Your task to perform on an android device: show emergency info Image 0: 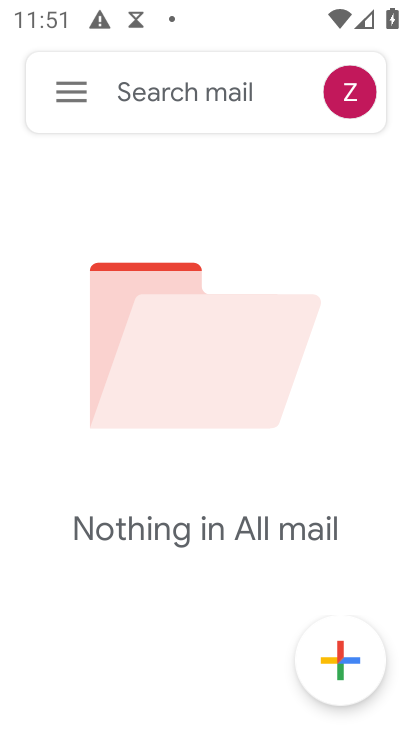
Step 0: press home button
Your task to perform on an android device: show emergency info Image 1: 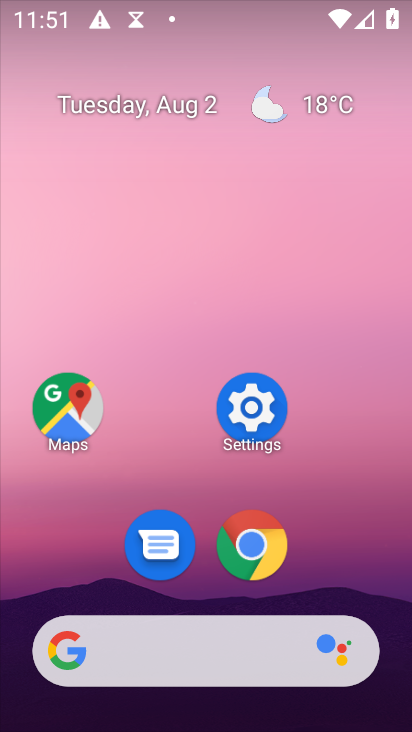
Step 1: click (261, 412)
Your task to perform on an android device: show emergency info Image 2: 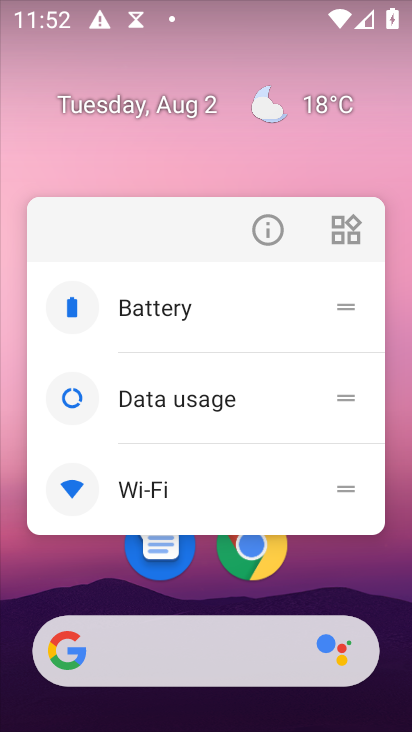
Step 2: click (355, 567)
Your task to perform on an android device: show emergency info Image 3: 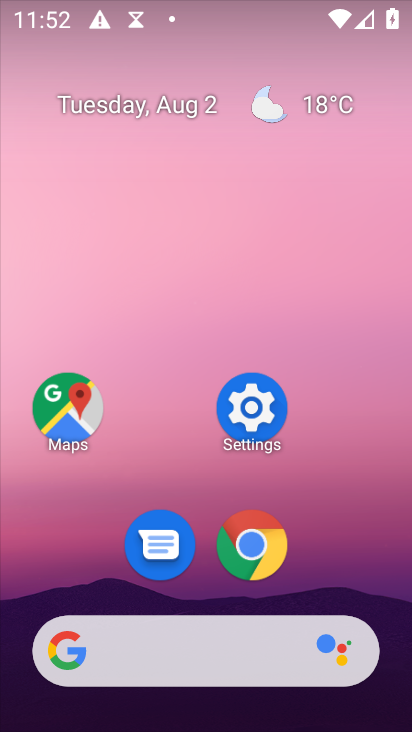
Step 3: click (256, 405)
Your task to perform on an android device: show emergency info Image 4: 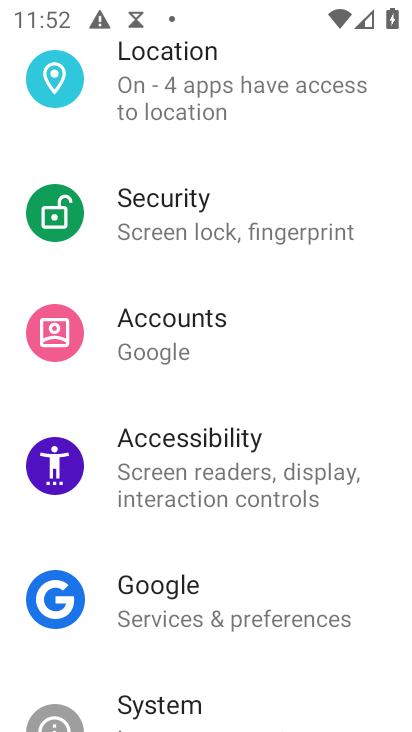
Step 4: drag from (253, 653) to (358, 64)
Your task to perform on an android device: show emergency info Image 5: 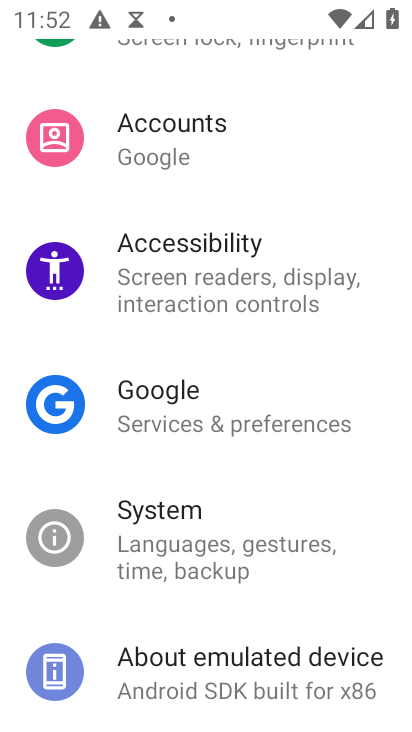
Step 5: drag from (222, 605) to (366, 92)
Your task to perform on an android device: show emergency info Image 6: 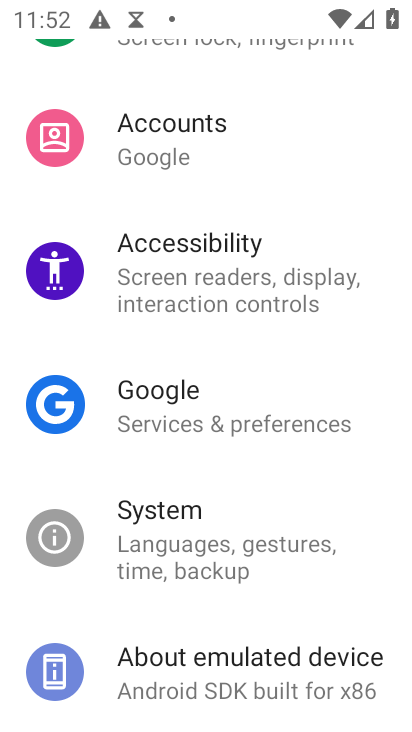
Step 6: click (189, 668)
Your task to perform on an android device: show emergency info Image 7: 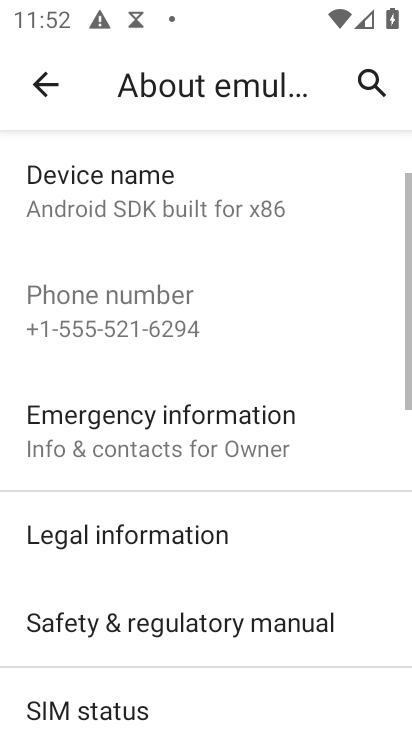
Step 7: click (234, 436)
Your task to perform on an android device: show emergency info Image 8: 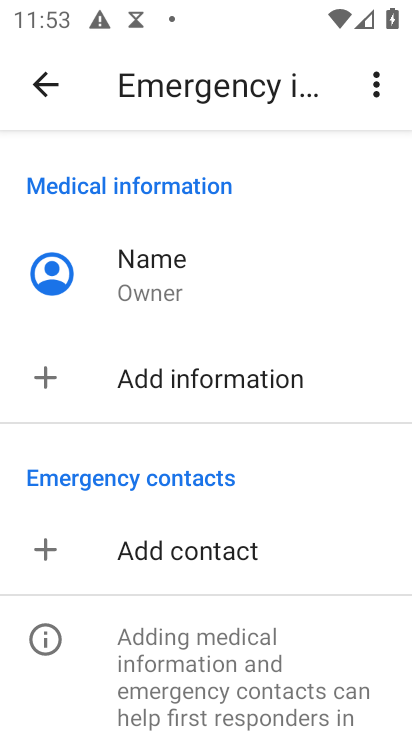
Step 8: task complete